Your task to perform on an android device: Show me popular games on the Play Store Image 0: 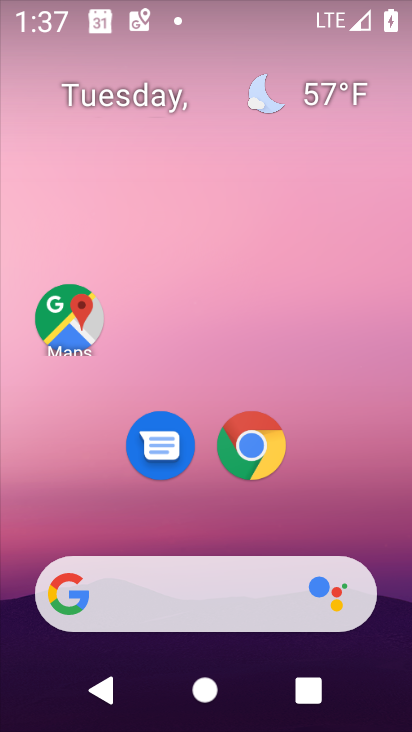
Step 0: drag from (378, 510) to (388, 122)
Your task to perform on an android device: Show me popular games on the Play Store Image 1: 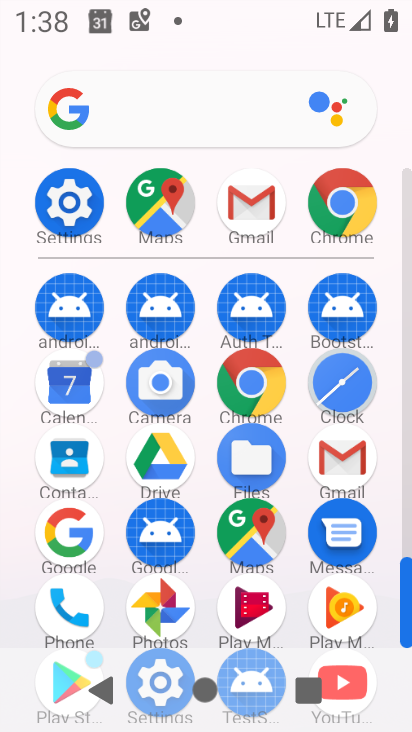
Step 1: drag from (383, 502) to (383, 318)
Your task to perform on an android device: Show me popular games on the Play Store Image 2: 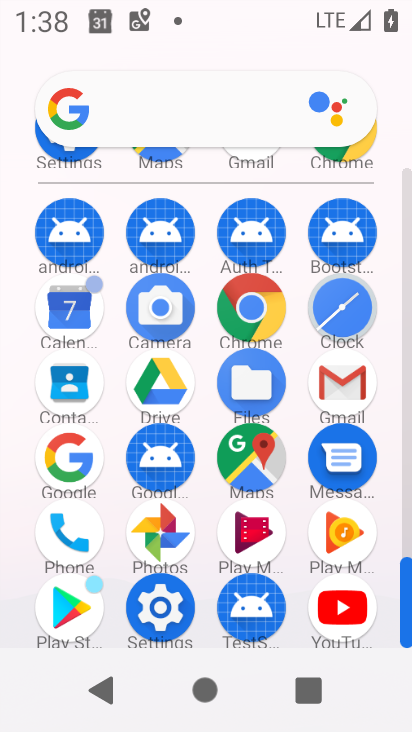
Step 2: click (71, 618)
Your task to perform on an android device: Show me popular games on the Play Store Image 3: 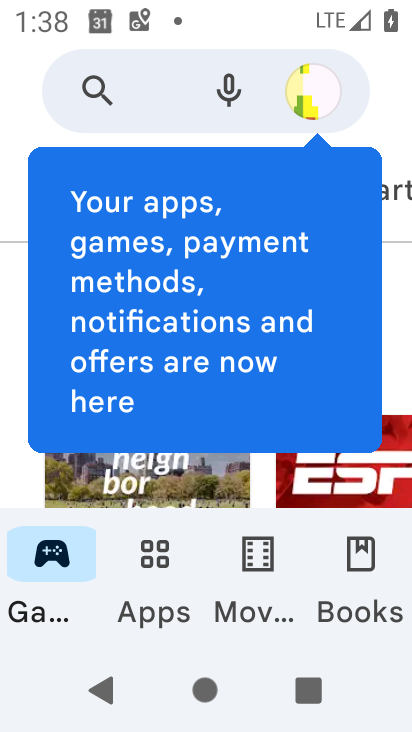
Step 3: task complete